Your task to perform on an android device: change notifications settings Image 0: 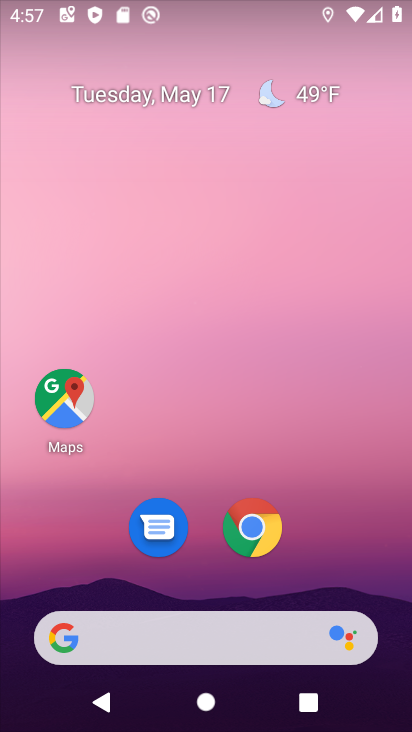
Step 0: drag from (314, 462) to (205, 7)
Your task to perform on an android device: change notifications settings Image 1: 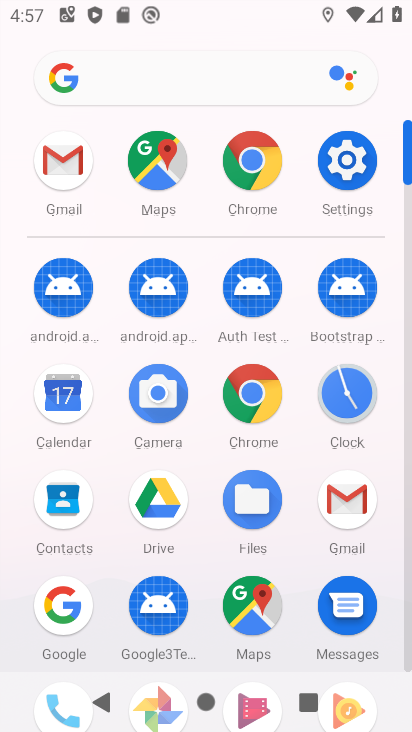
Step 1: drag from (6, 500) to (20, 174)
Your task to perform on an android device: change notifications settings Image 2: 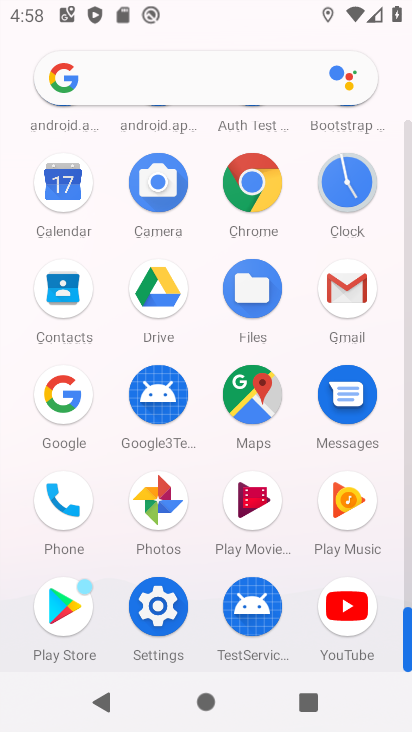
Step 2: drag from (21, 520) to (25, 201)
Your task to perform on an android device: change notifications settings Image 3: 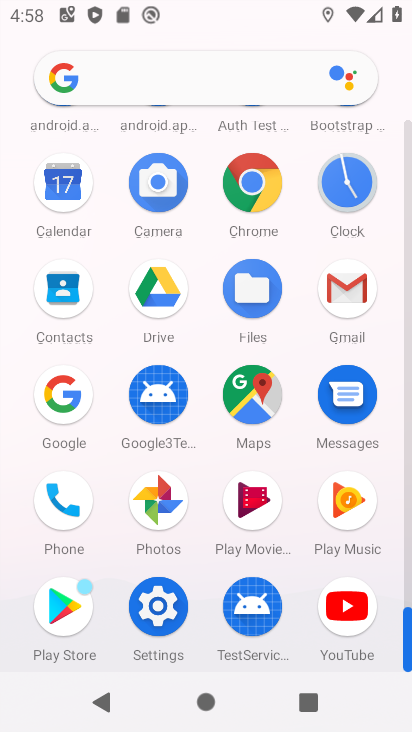
Step 3: click (161, 606)
Your task to perform on an android device: change notifications settings Image 4: 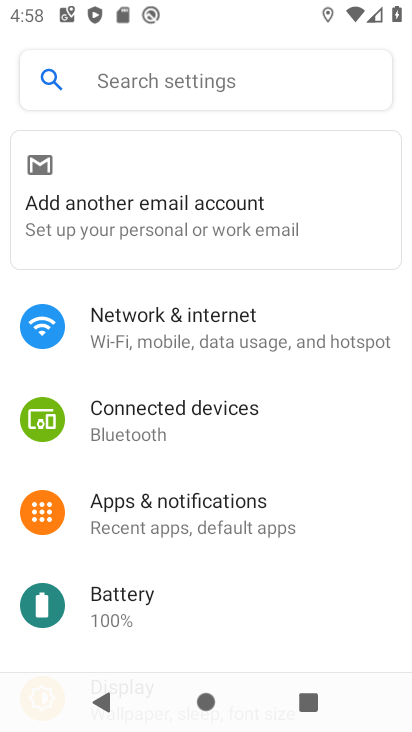
Step 4: drag from (270, 525) to (305, 144)
Your task to perform on an android device: change notifications settings Image 5: 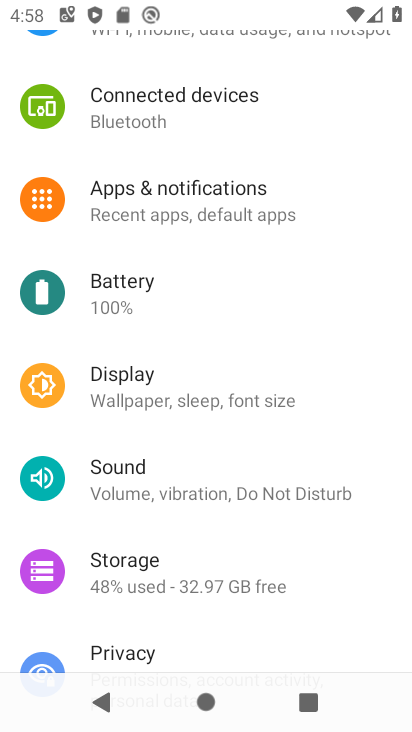
Step 5: drag from (307, 535) to (310, 83)
Your task to perform on an android device: change notifications settings Image 6: 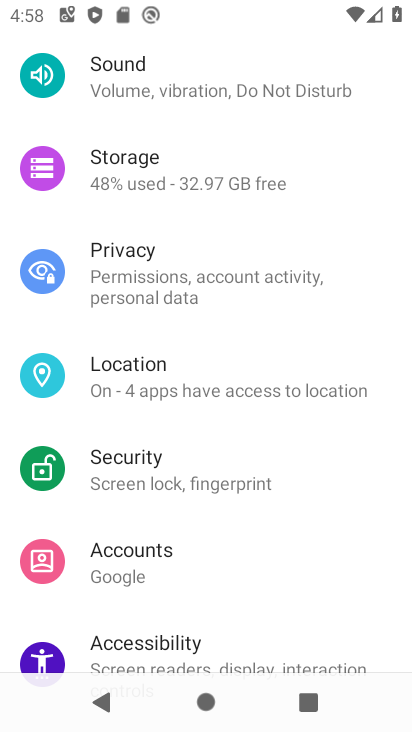
Step 6: drag from (286, 508) to (320, 123)
Your task to perform on an android device: change notifications settings Image 7: 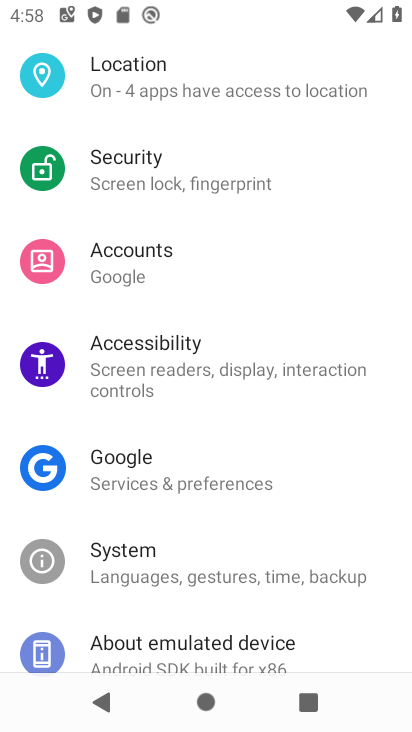
Step 7: drag from (285, 143) to (322, 605)
Your task to perform on an android device: change notifications settings Image 8: 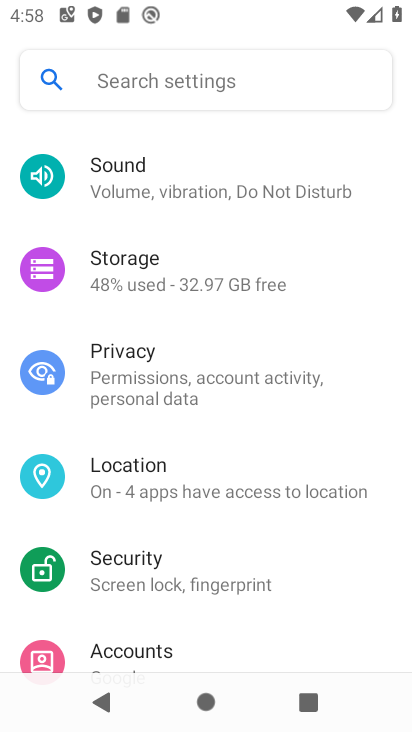
Step 8: drag from (265, 216) to (247, 600)
Your task to perform on an android device: change notifications settings Image 9: 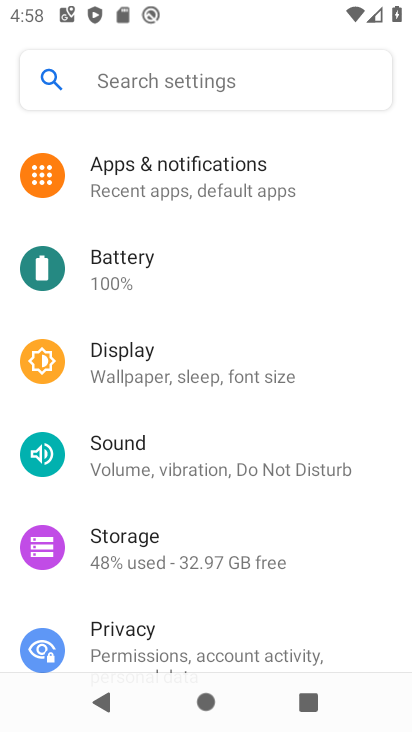
Step 9: click (232, 169)
Your task to perform on an android device: change notifications settings Image 10: 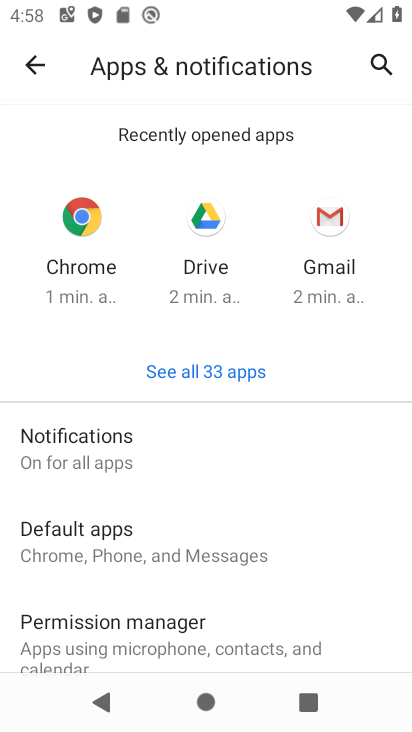
Step 10: click (98, 449)
Your task to perform on an android device: change notifications settings Image 11: 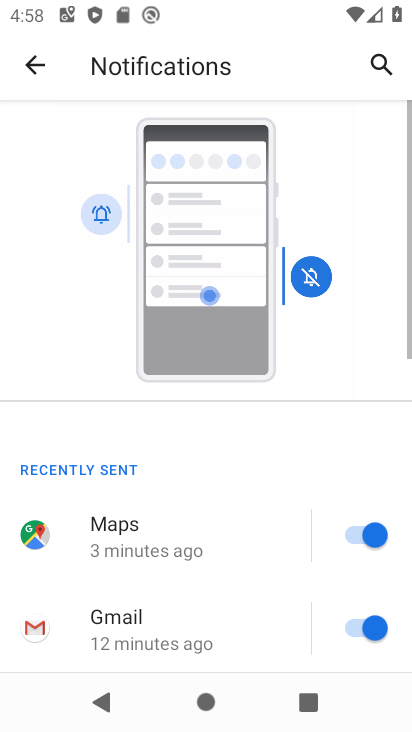
Step 11: drag from (227, 556) to (253, 122)
Your task to perform on an android device: change notifications settings Image 12: 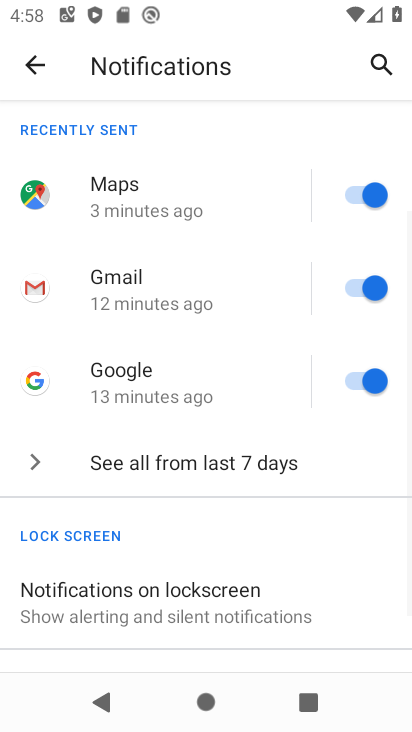
Step 12: drag from (218, 550) to (222, 190)
Your task to perform on an android device: change notifications settings Image 13: 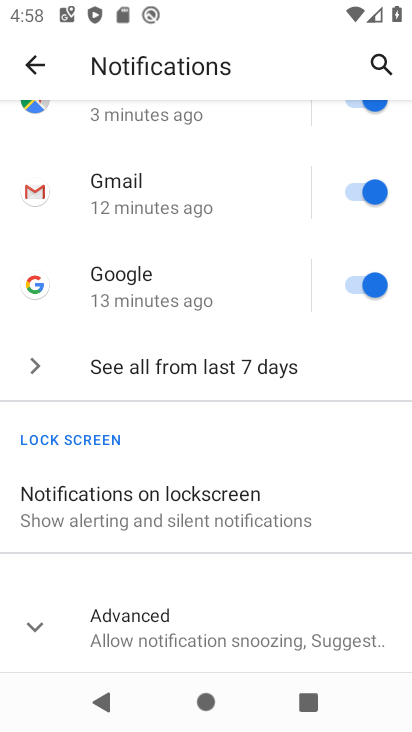
Step 13: drag from (196, 554) to (219, 94)
Your task to perform on an android device: change notifications settings Image 14: 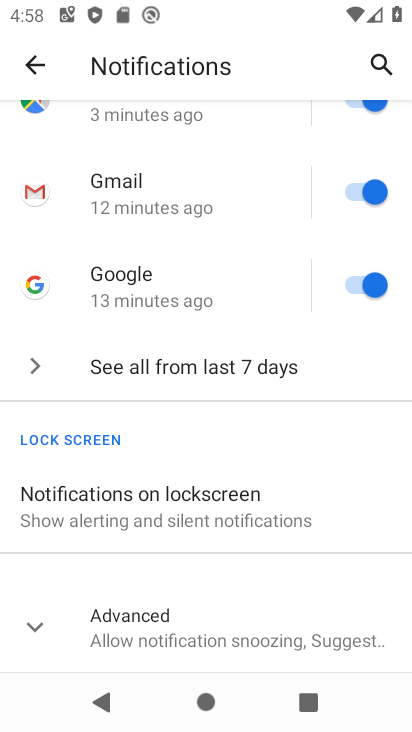
Step 14: click (59, 607)
Your task to perform on an android device: change notifications settings Image 15: 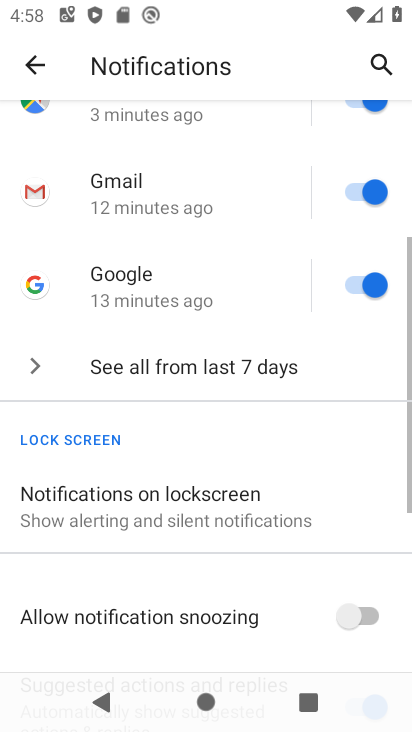
Step 15: task complete